Your task to perform on an android device: Open calendar and show me the first week of next month Image 0: 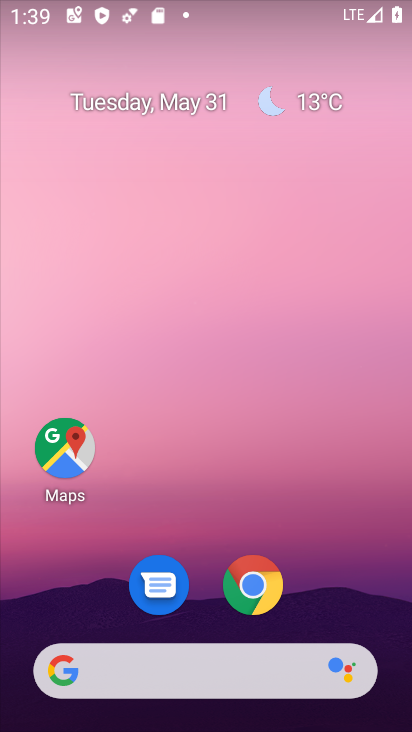
Step 0: drag from (203, 512) to (253, 31)
Your task to perform on an android device: Open calendar and show me the first week of next month Image 1: 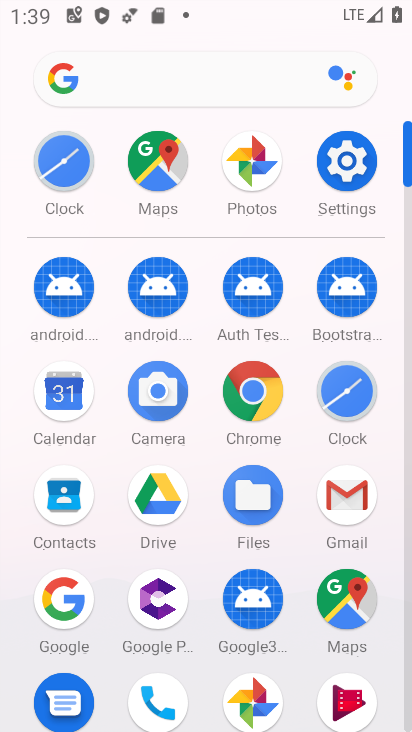
Step 1: click (67, 380)
Your task to perform on an android device: Open calendar and show me the first week of next month Image 2: 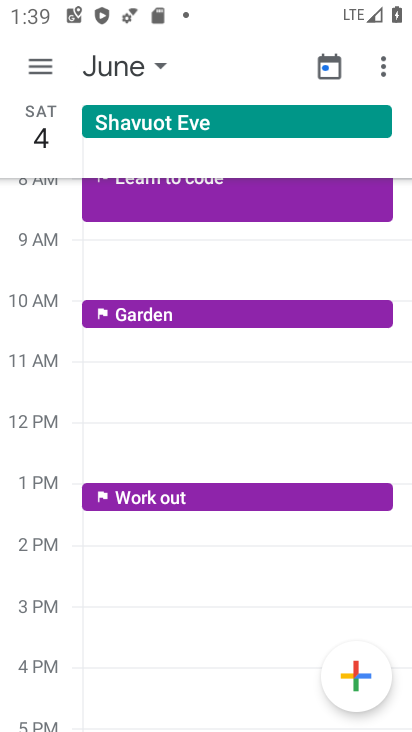
Step 2: click (42, 63)
Your task to perform on an android device: Open calendar and show me the first week of next month Image 3: 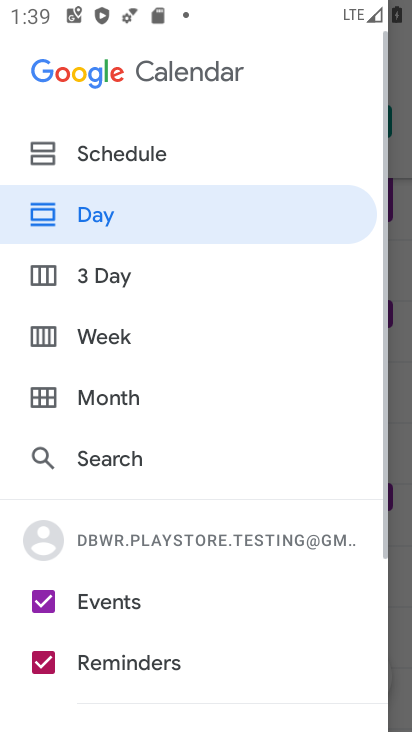
Step 3: click (41, 340)
Your task to perform on an android device: Open calendar and show me the first week of next month Image 4: 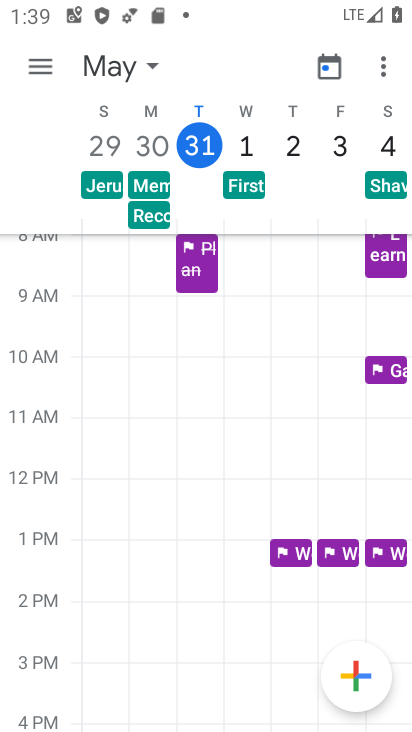
Step 4: task complete